Your task to perform on an android device: What's on my calendar today? Image 0: 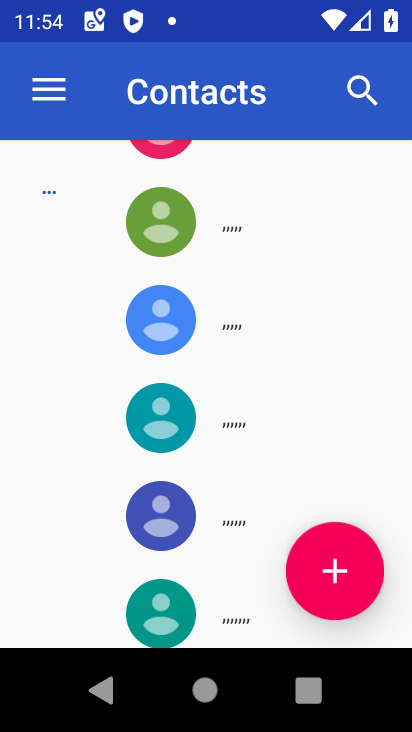
Step 0: press home button
Your task to perform on an android device: What's on my calendar today? Image 1: 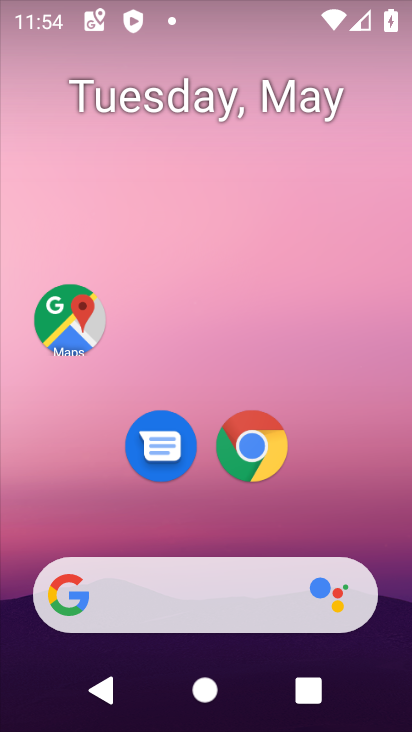
Step 1: drag from (206, 726) to (209, 211)
Your task to perform on an android device: What's on my calendar today? Image 2: 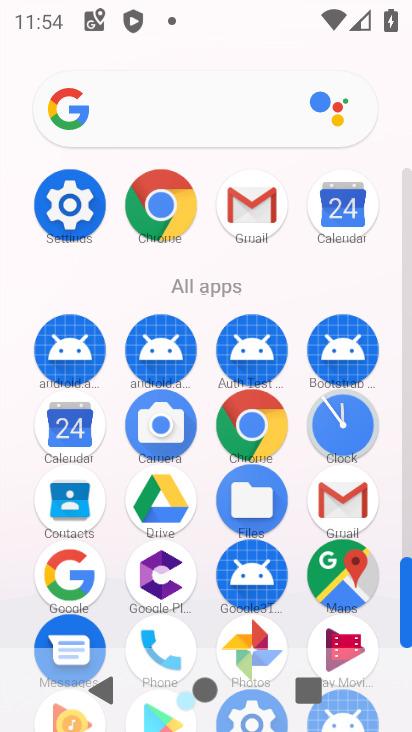
Step 2: click (67, 433)
Your task to perform on an android device: What's on my calendar today? Image 3: 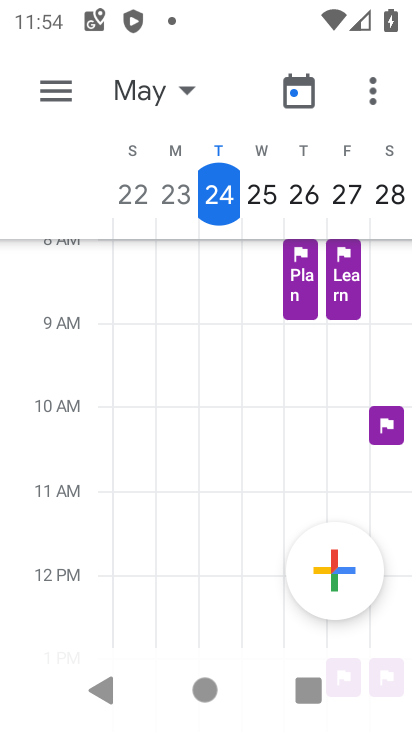
Step 3: click (222, 195)
Your task to perform on an android device: What's on my calendar today? Image 4: 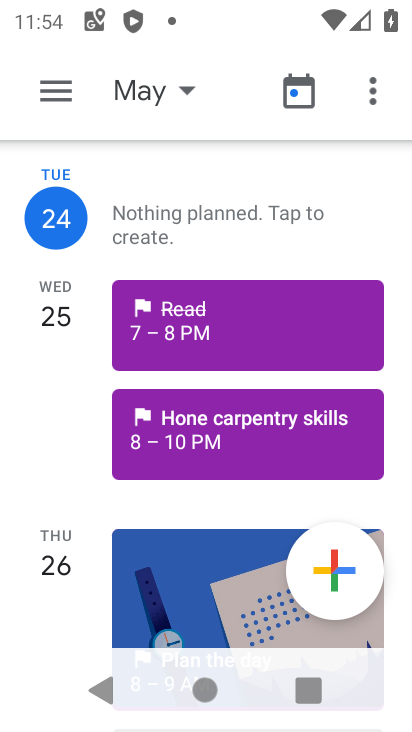
Step 4: task complete